Your task to perform on an android device: turn off picture-in-picture Image 0: 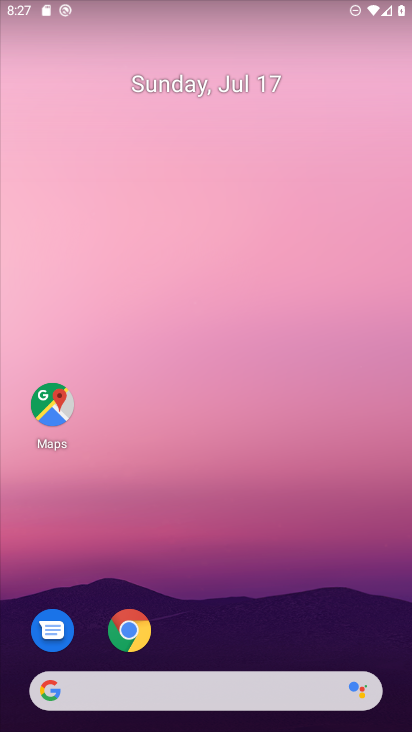
Step 0: drag from (370, 630) to (167, 21)
Your task to perform on an android device: turn off picture-in-picture Image 1: 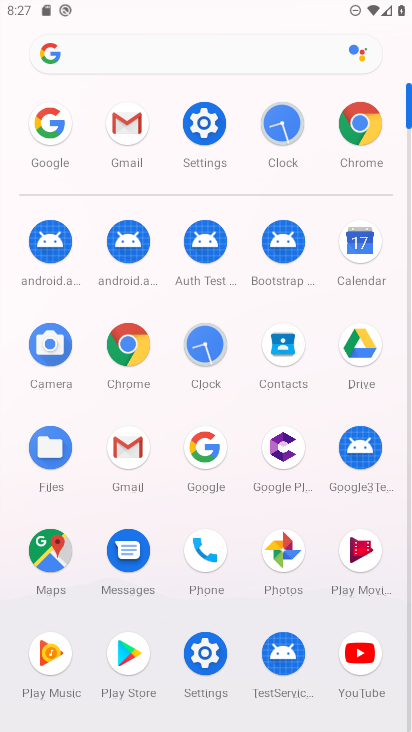
Step 1: click (124, 344)
Your task to perform on an android device: turn off picture-in-picture Image 2: 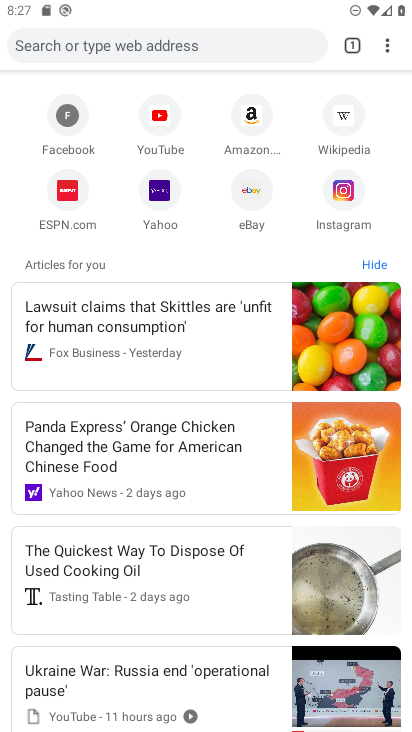
Step 2: task complete